Your task to perform on an android device: clear history in the chrome app Image 0: 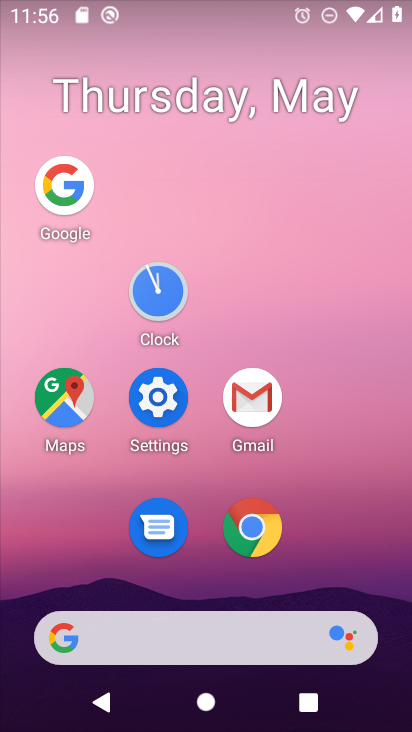
Step 0: click (261, 523)
Your task to perform on an android device: clear history in the chrome app Image 1: 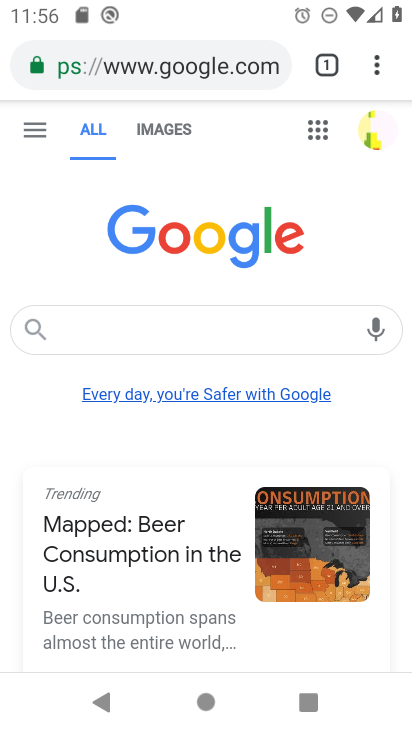
Step 1: click (374, 71)
Your task to perform on an android device: clear history in the chrome app Image 2: 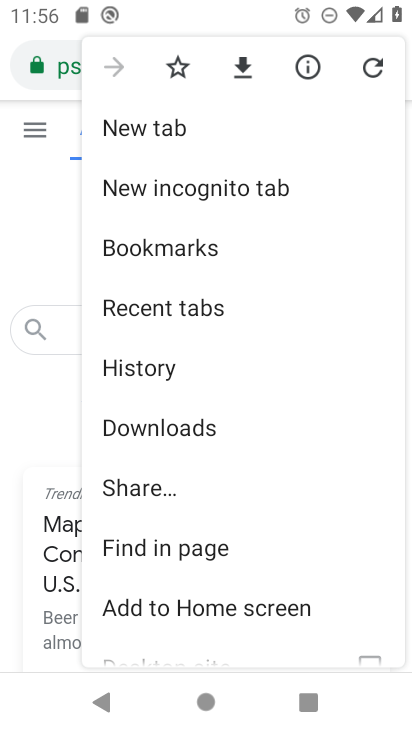
Step 2: click (210, 346)
Your task to perform on an android device: clear history in the chrome app Image 3: 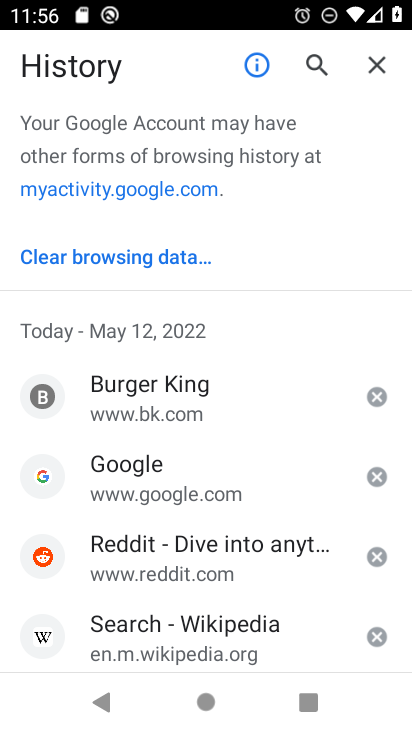
Step 3: click (157, 260)
Your task to perform on an android device: clear history in the chrome app Image 4: 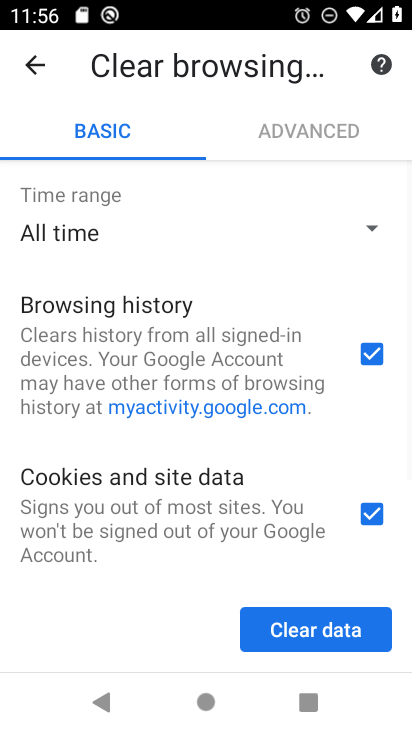
Step 4: click (300, 635)
Your task to perform on an android device: clear history in the chrome app Image 5: 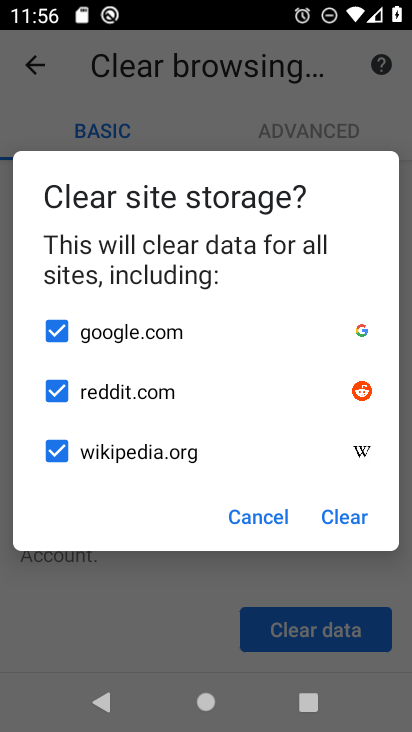
Step 5: click (336, 518)
Your task to perform on an android device: clear history in the chrome app Image 6: 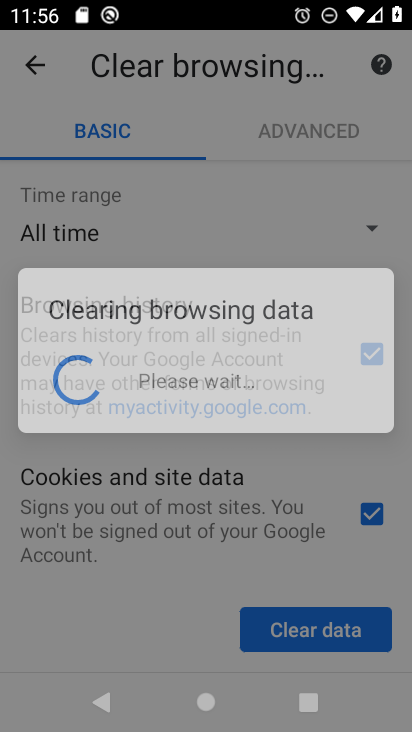
Step 6: task complete